Your task to perform on an android device: Add usb-a to usb-b to the cart on newegg.com Image 0: 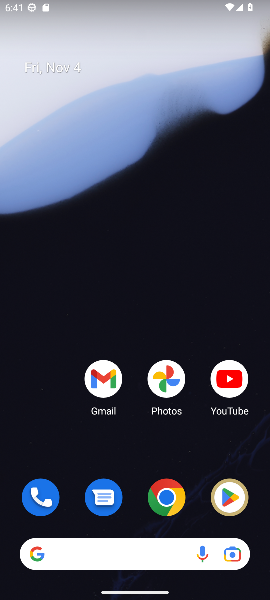
Step 0: click (170, 502)
Your task to perform on an android device: Add usb-a to usb-b to the cart on newegg.com Image 1: 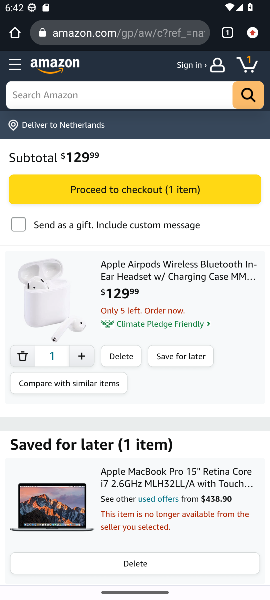
Step 1: click (143, 36)
Your task to perform on an android device: Add usb-a to usb-b to the cart on newegg.com Image 2: 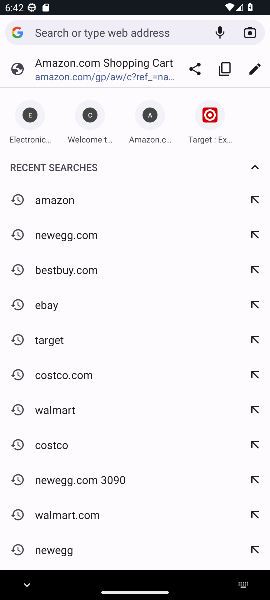
Step 2: type "newegg.com"
Your task to perform on an android device: Add usb-a to usb-b to the cart on newegg.com Image 3: 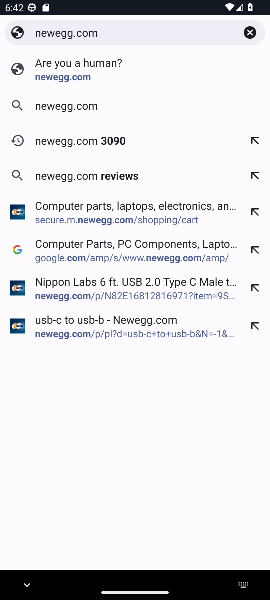
Step 3: click (53, 116)
Your task to perform on an android device: Add usb-a to usb-b to the cart on newegg.com Image 4: 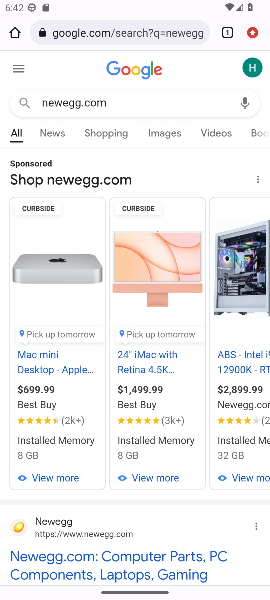
Step 4: drag from (89, 498) to (88, 227)
Your task to perform on an android device: Add usb-a to usb-b to the cart on newegg.com Image 5: 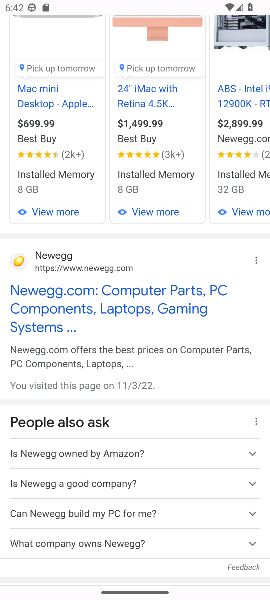
Step 5: click (49, 262)
Your task to perform on an android device: Add usb-a to usb-b to the cart on newegg.com Image 6: 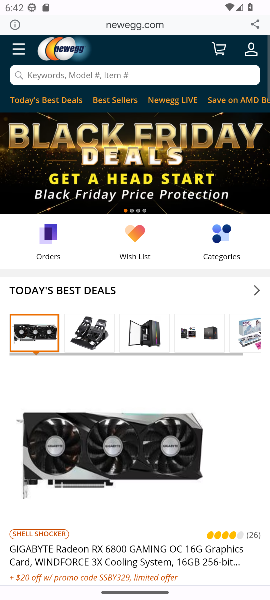
Step 6: click (82, 79)
Your task to perform on an android device: Add usb-a to usb-b to the cart on newegg.com Image 7: 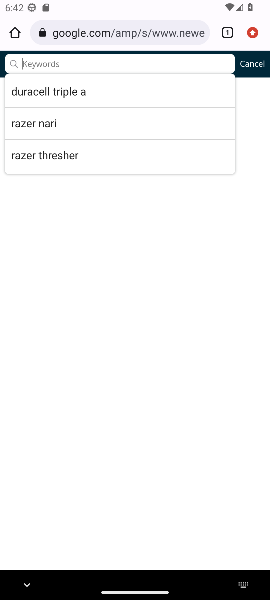
Step 7: type "usb-a to usb-b"
Your task to perform on an android device: Add usb-a to usb-b to the cart on newegg.com Image 8: 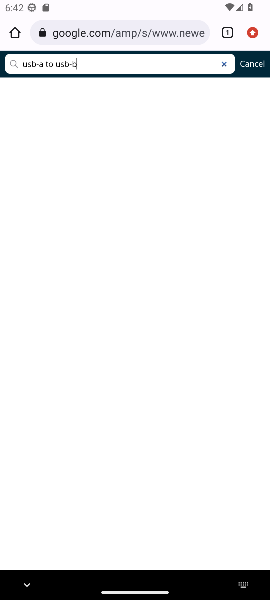
Step 8: click (17, 63)
Your task to perform on an android device: Add usb-a to usb-b to the cart on newegg.com Image 9: 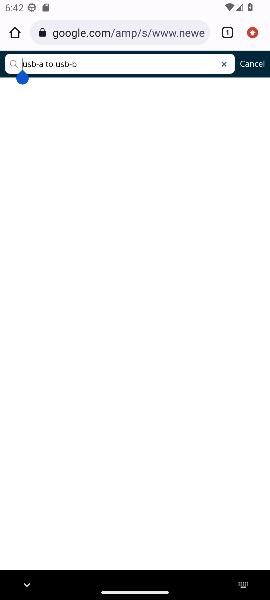
Step 9: task complete